Your task to perform on an android device: Do I have any events this weekend? Image 0: 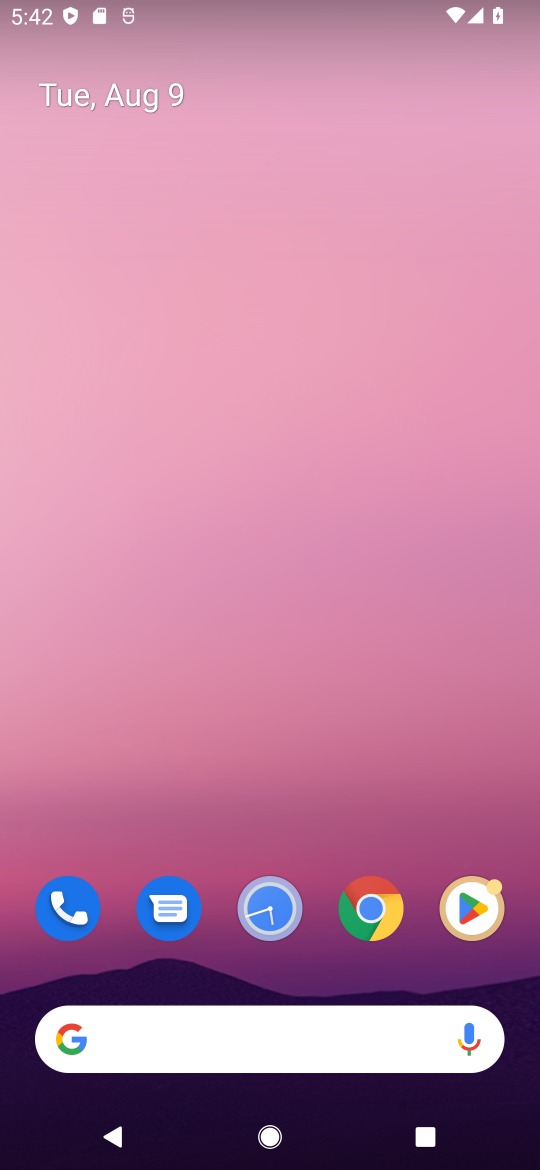
Step 0: drag from (298, 802) to (335, 0)
Your task to perform on an android device: Do I have any events this weekend? Image 1: 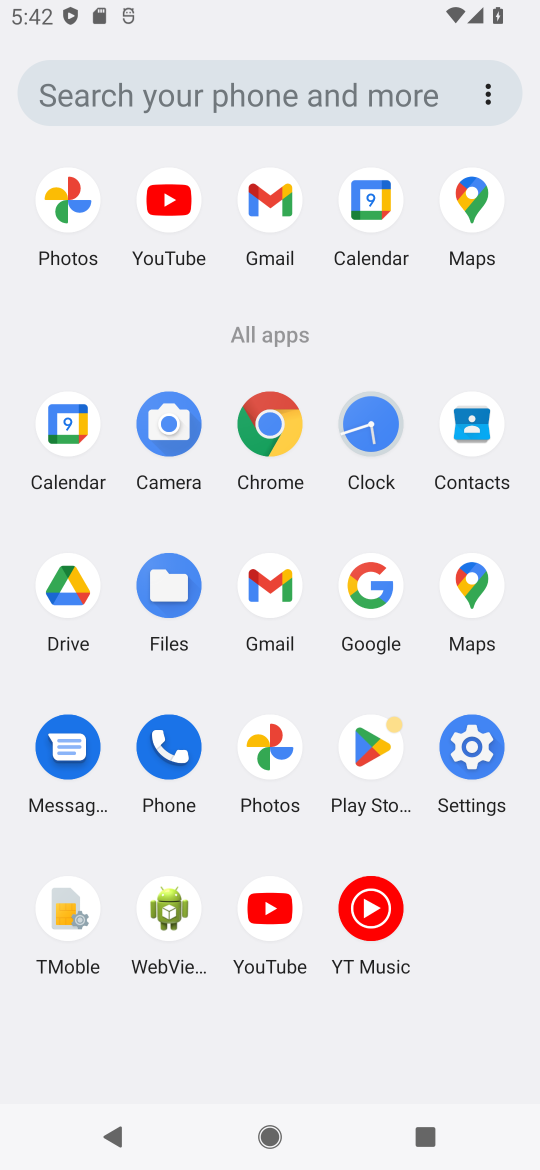
Step 1: click (363, 198)
Your task to perform on an android device: Do I have any events this weekend? Image 2: 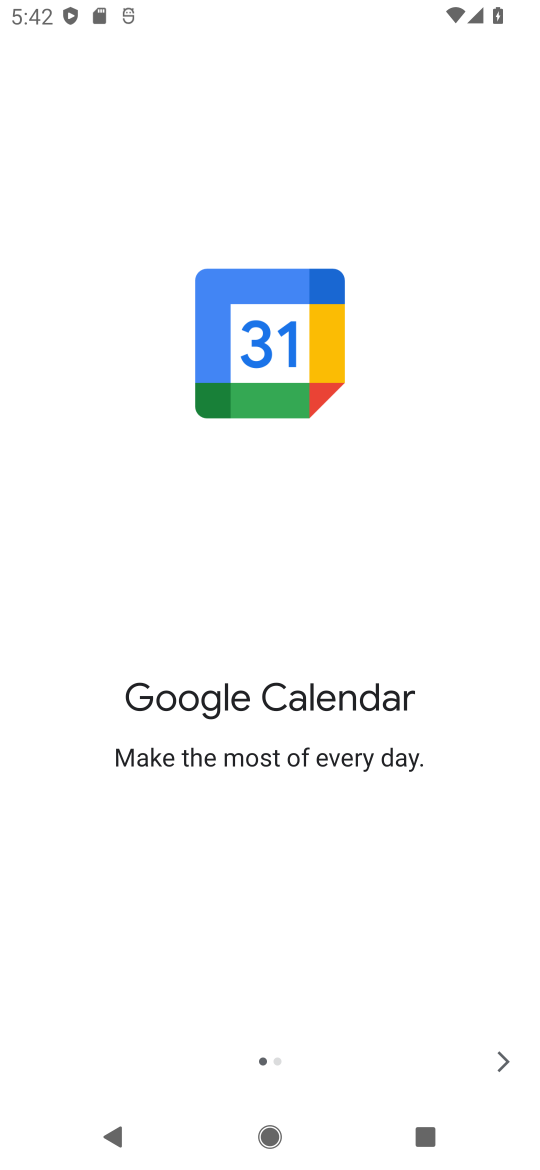
Step 2: click (503, 1061)
Your task to perform on an android device: Do I have any events this weekend? Image 3: 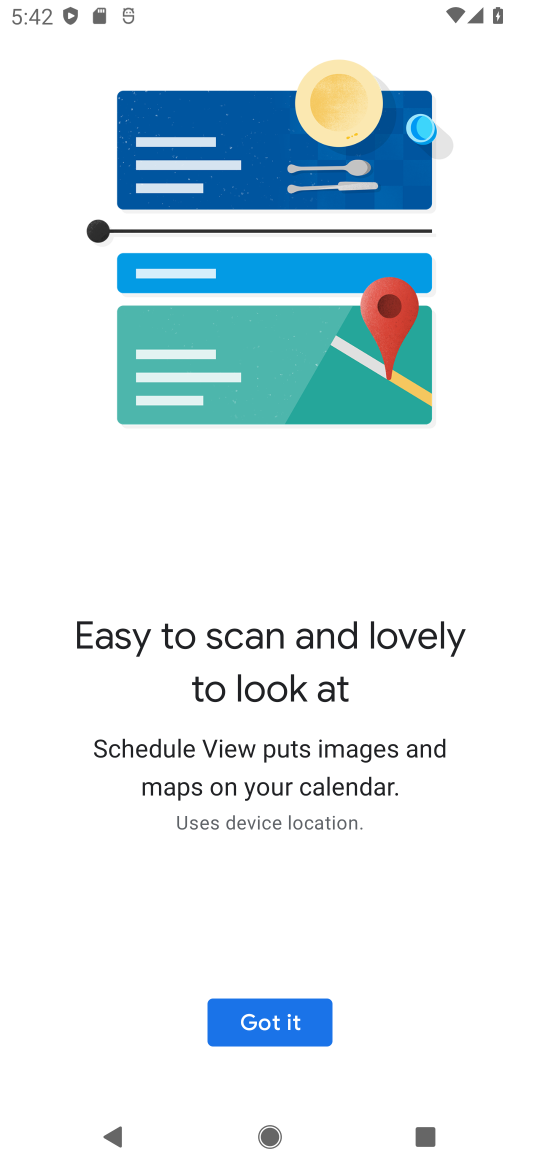
Step 3: click (321, 1014)
Your task to perform on an android device: Do I have any events this weekend? Image 4: 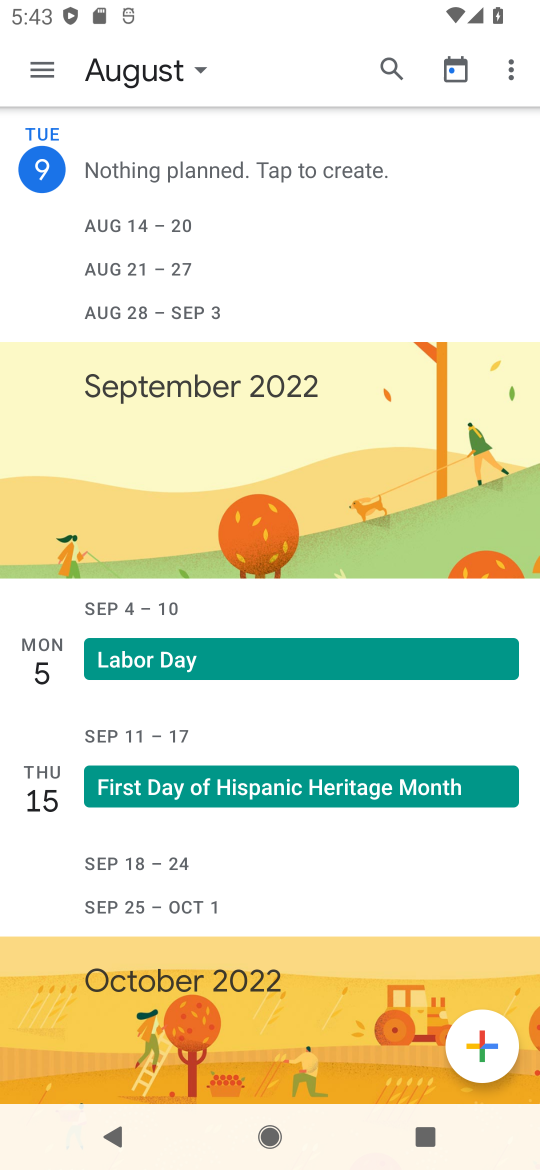
Step 4: click (44, 68)
Your task to perform on an android device: Do I have any events this weekend? Image 5: 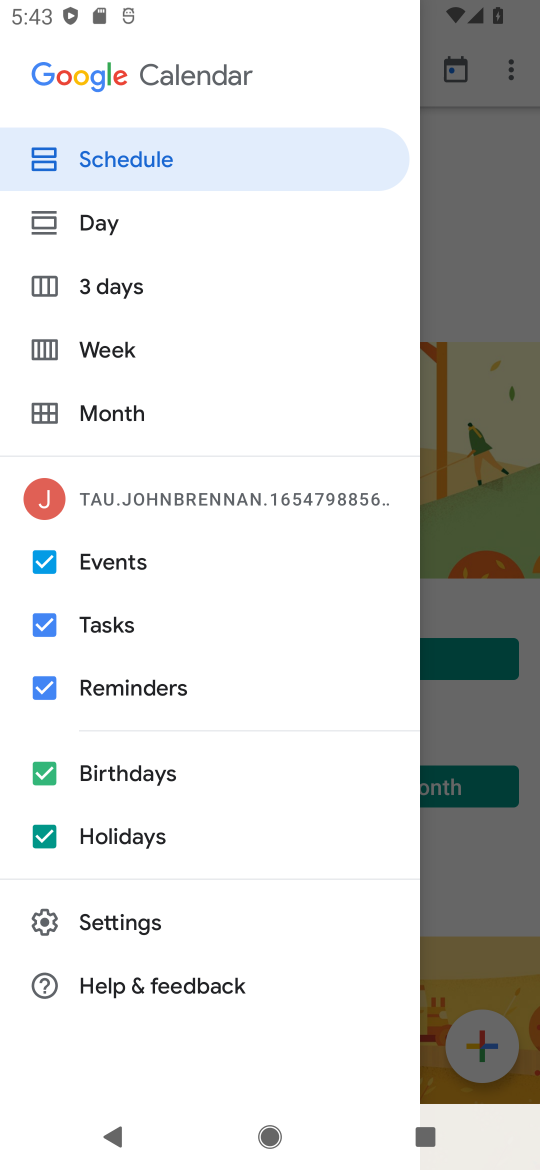
Step 5: click (93, 334)
Your task to perform on an android device: Do I have any events this weekend? Image 6: 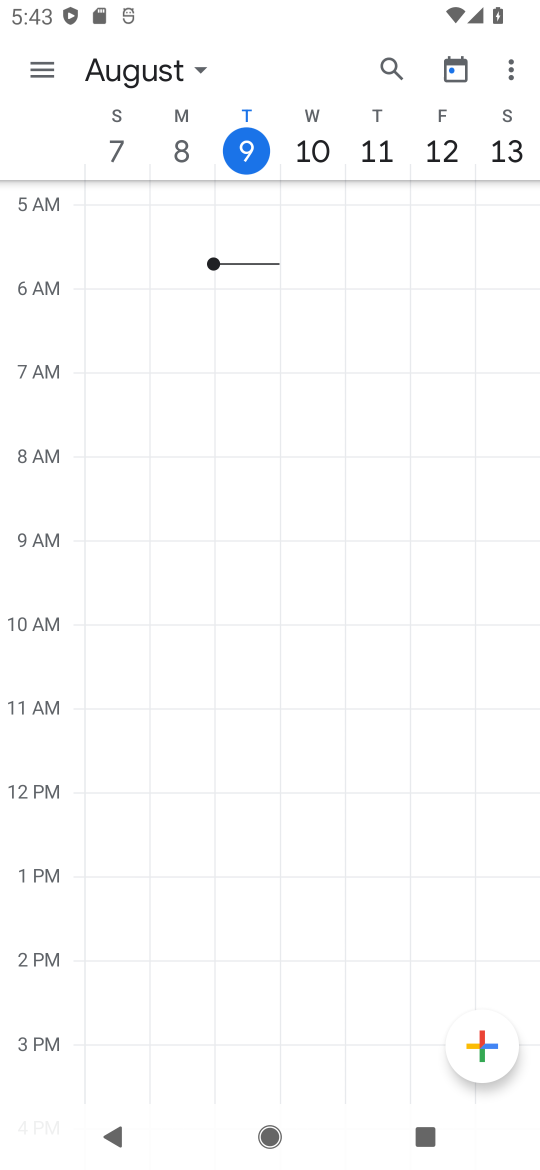
Step 6: task complete